Your task to perform on an android device: toggle translation in the chrome app Image 0: 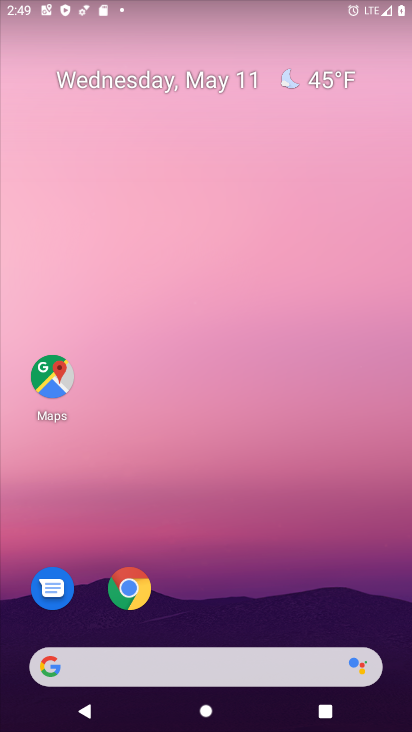
Step 0: click (144, 590)
Your task to perform on an android device: toggle translation in the chrome app Image 1: 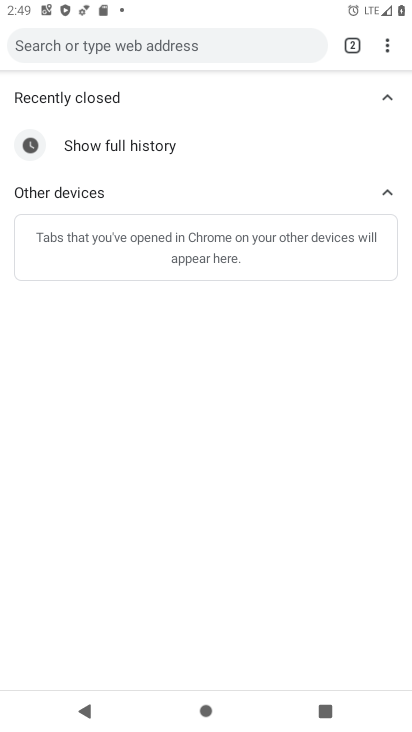
Step 1: click (388, 47)
Your task to perform on an android device: toggle translation in the chrome app Image 2: 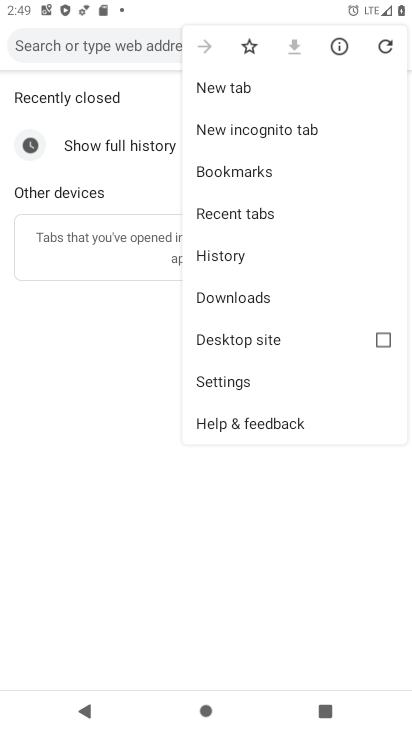
Step 2: click (262, 377)
Your task to perform on an android device: toggle translation in the chrome app Image 3: 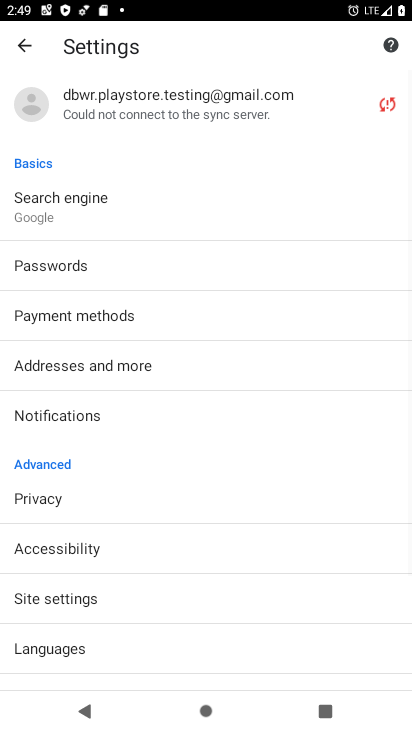
Step 3: click (164, 655)
Your task to perform on an android device: toggle translation in the chrome app Image 4: 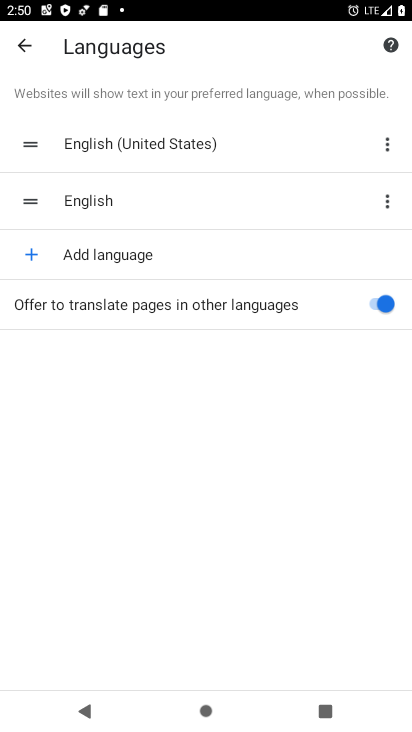
Step 4: click (371, 308)
Your task to perform on an android device: toggle translation in the chrome app Image 5: 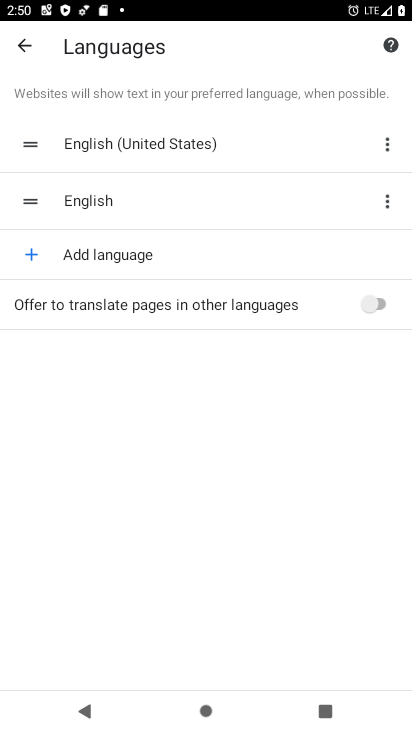
Step 5: task complete